Your task to perform on an android device: Open the web browser Image 0: 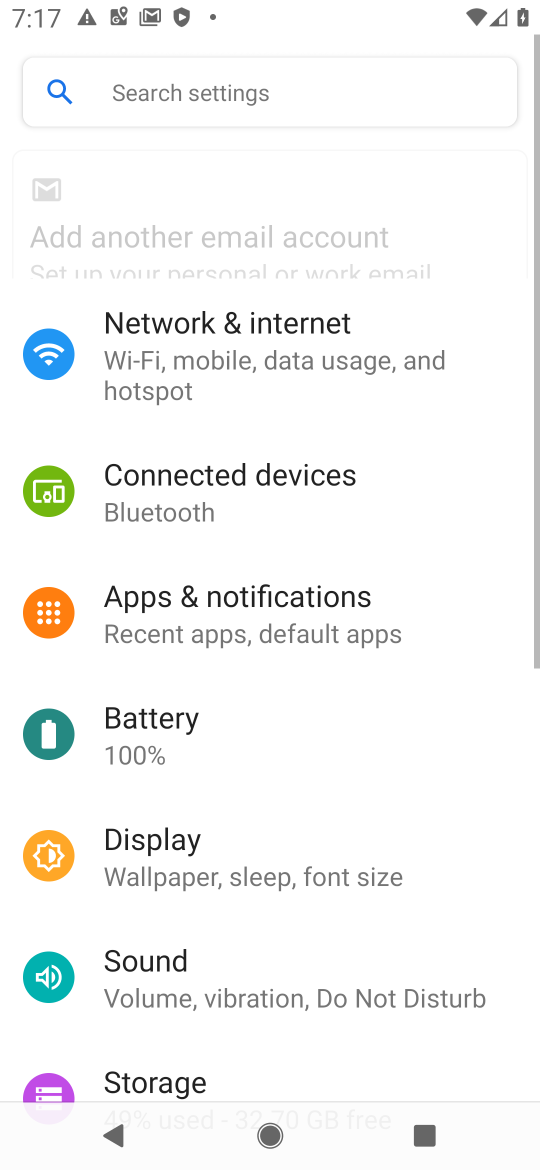
Step 0: drag from (480, 968) to (383, 310)
Your task to perform on an android device: Open the web browser Image 1: 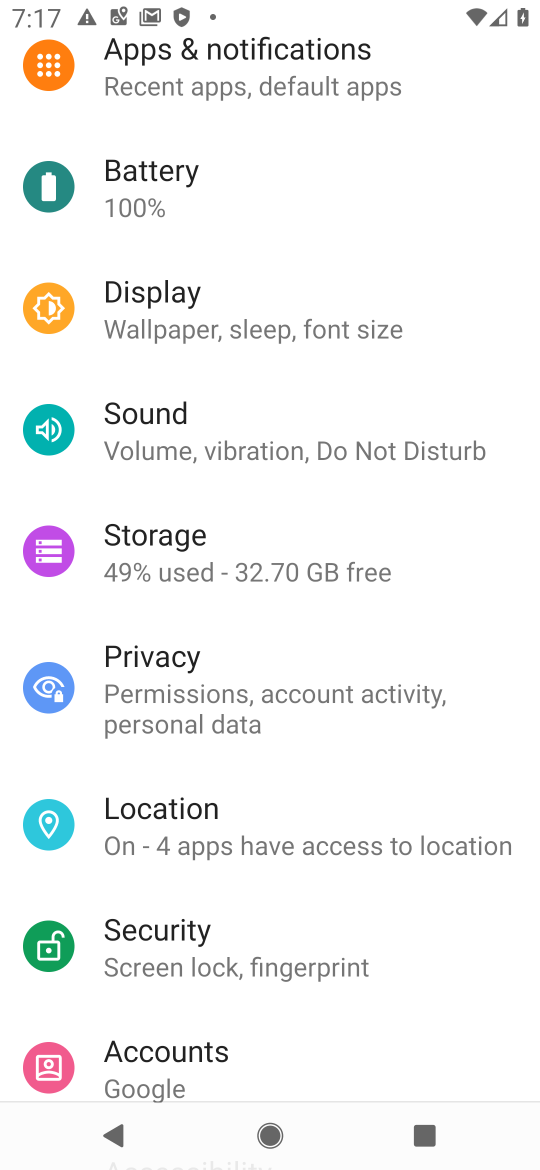
Step 1: click (111, 822)
Your task to perform on an android device: Open the web browser Image 2: 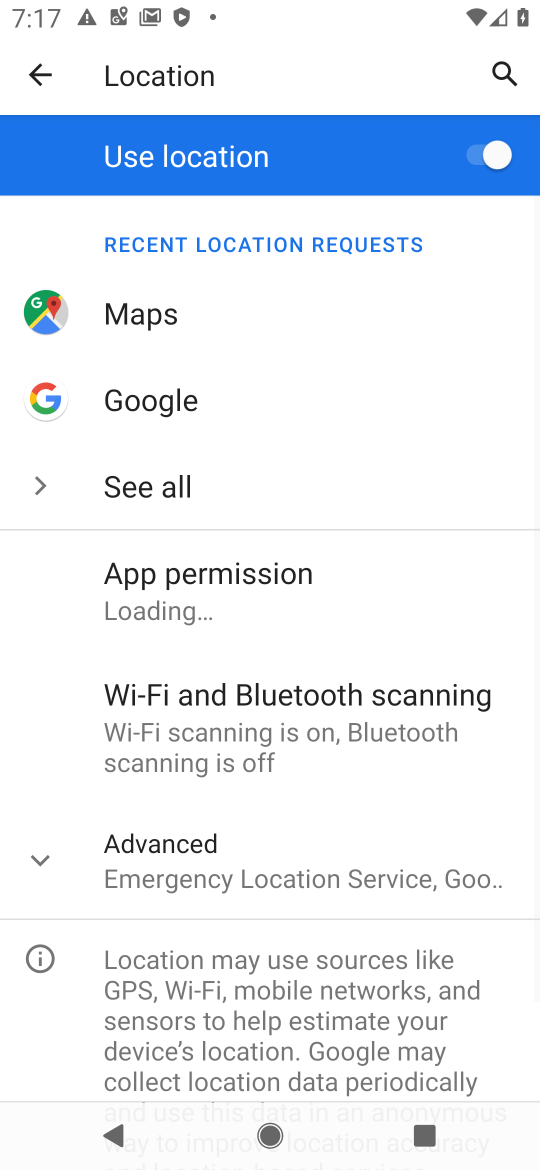
Step 2: click (38, 851)
Your task to perform on an android device: Open the web browser Image 3: 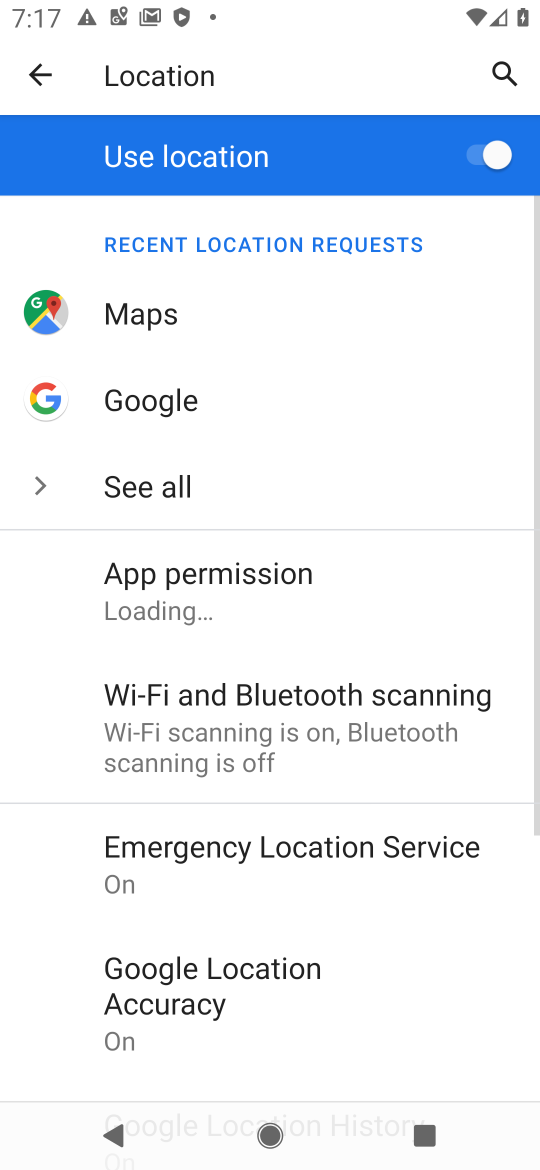
Step 3: press back button
Your task to perform on an android device: Open the web browser Image 4: 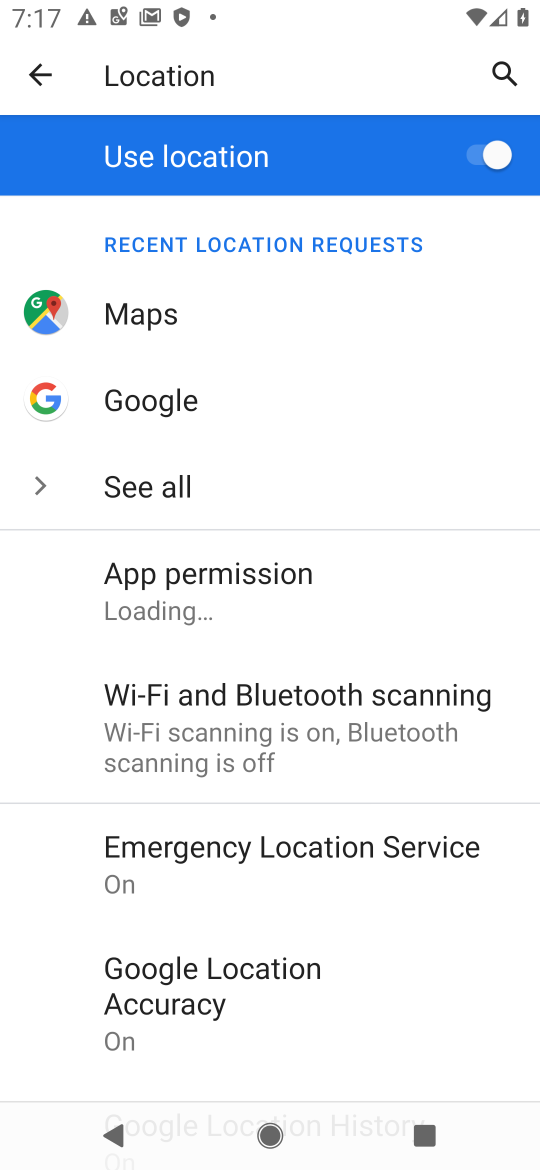
Step 4: press home button
Your task to perform on an android device: Open the web browser Image 5: 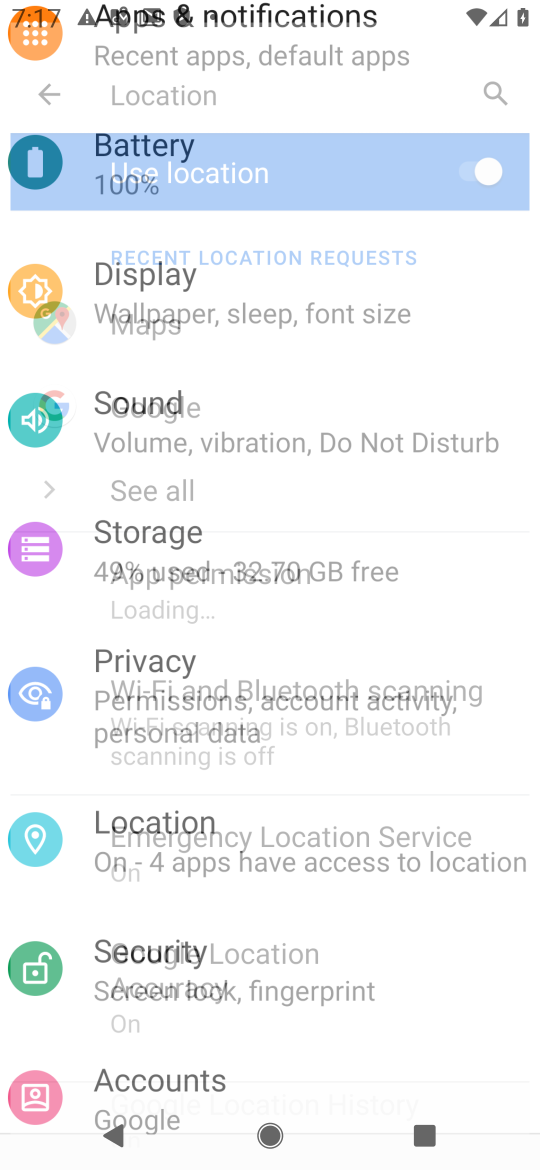
Step 5: drag from (393, 1029) to (301, 79)
Your task to perform on an android device: Open the web browser Image 6: 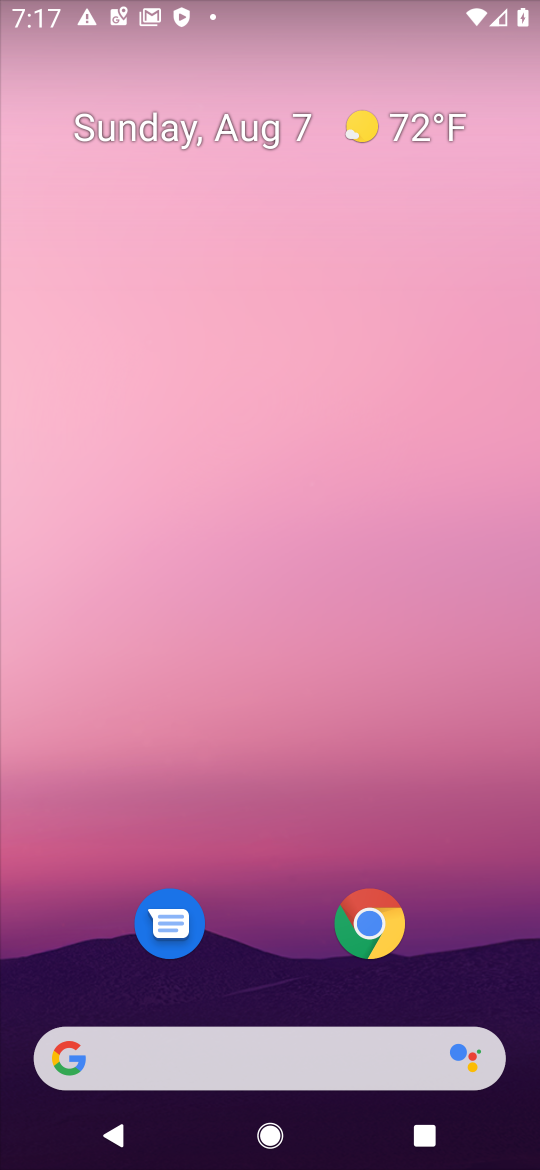
Step 6: drag from (470, 954) to (392, 5)
Your task to perform on an android device: Open the web browser Image 7: 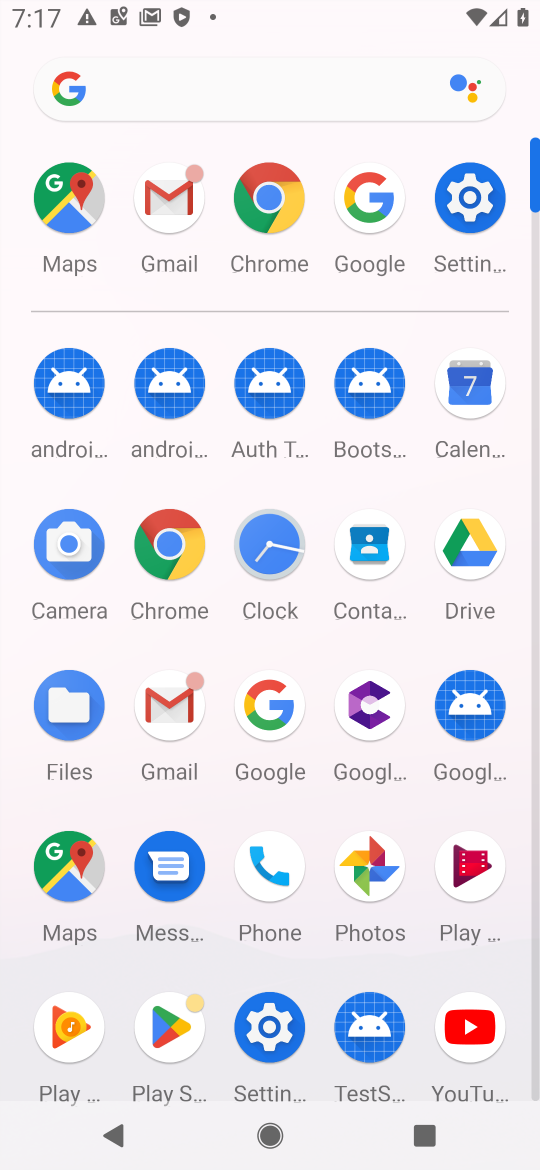
Step 7: click (259, 709)
Your task to perform on an android device: Open the web browser Image 8: 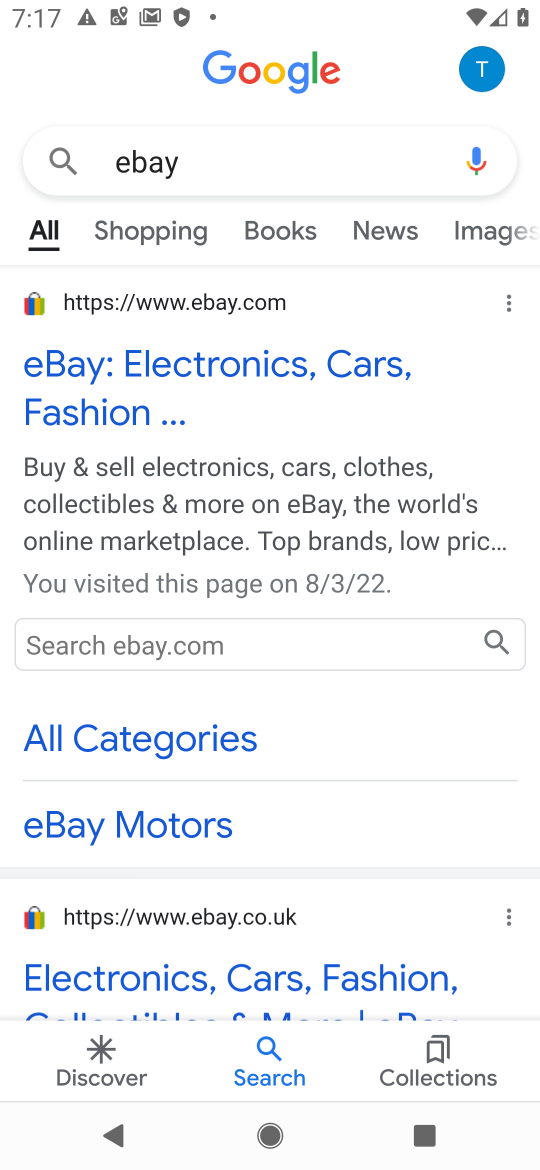
Step 8: press back button
Your task to perform on an android device: Open the web browser Image 9: 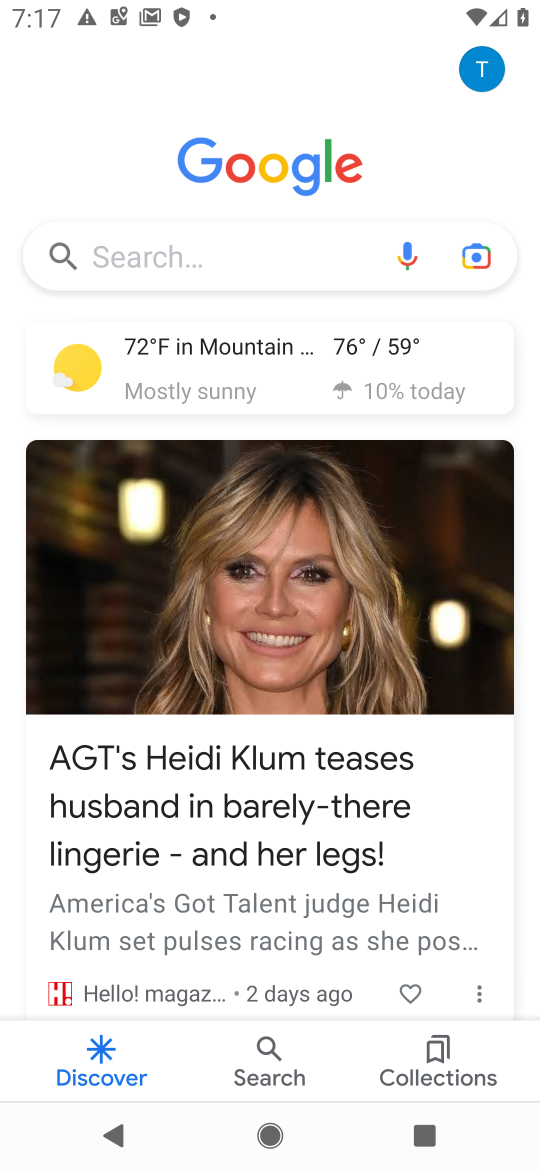
Step 9: click (238, 263)
Your task to perform on an android device: Open the web browser Image 10: 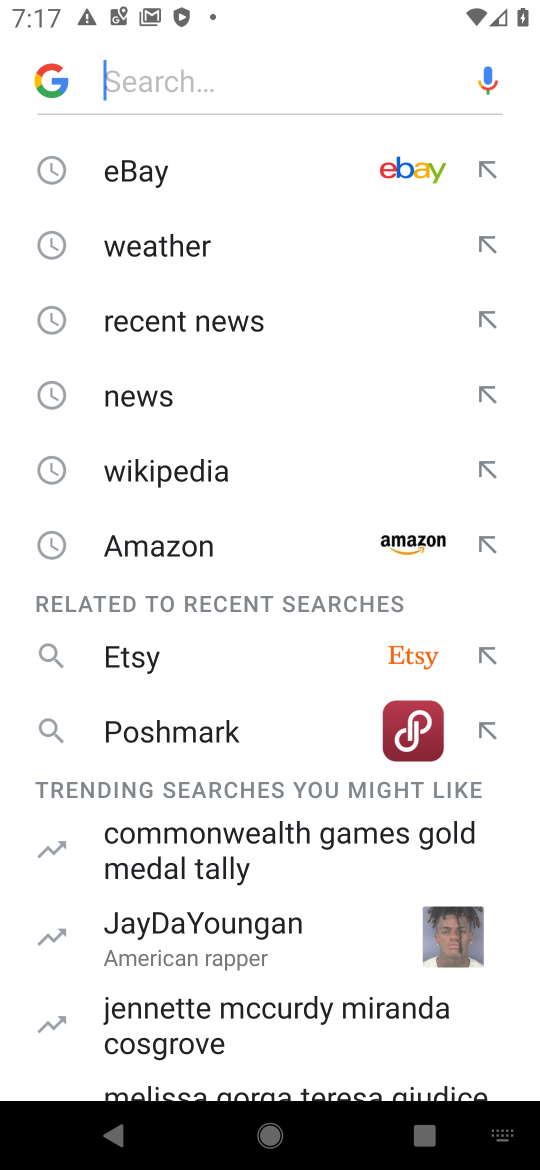
Step 10: type " web browser"
Your task to perform on an android device: Open the web browser Image 11: 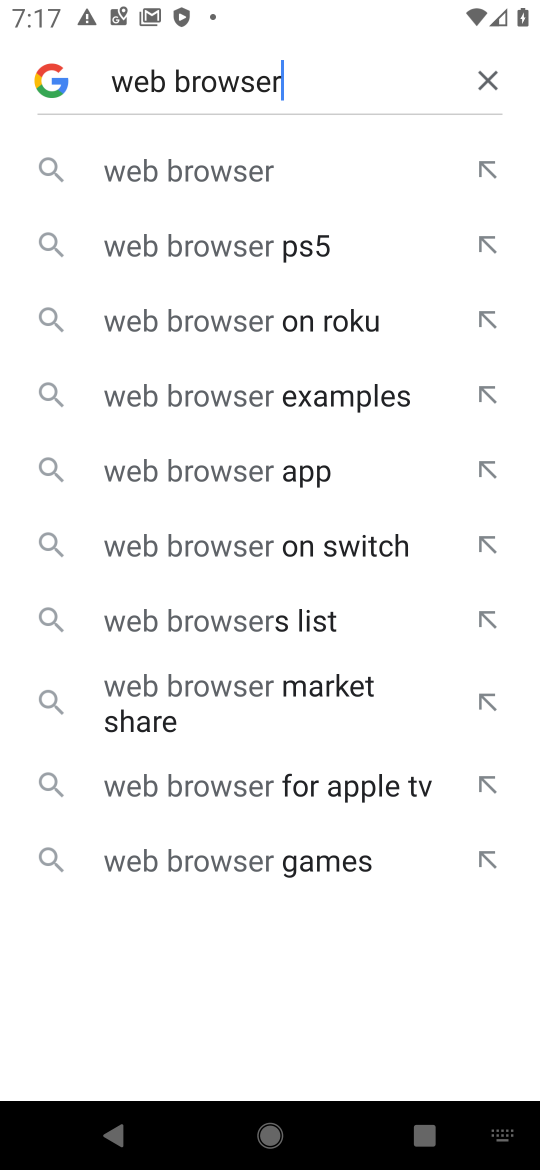
Step 11: click (140, 181)
Your task to perform on an android device: Open the web browser Image 12: 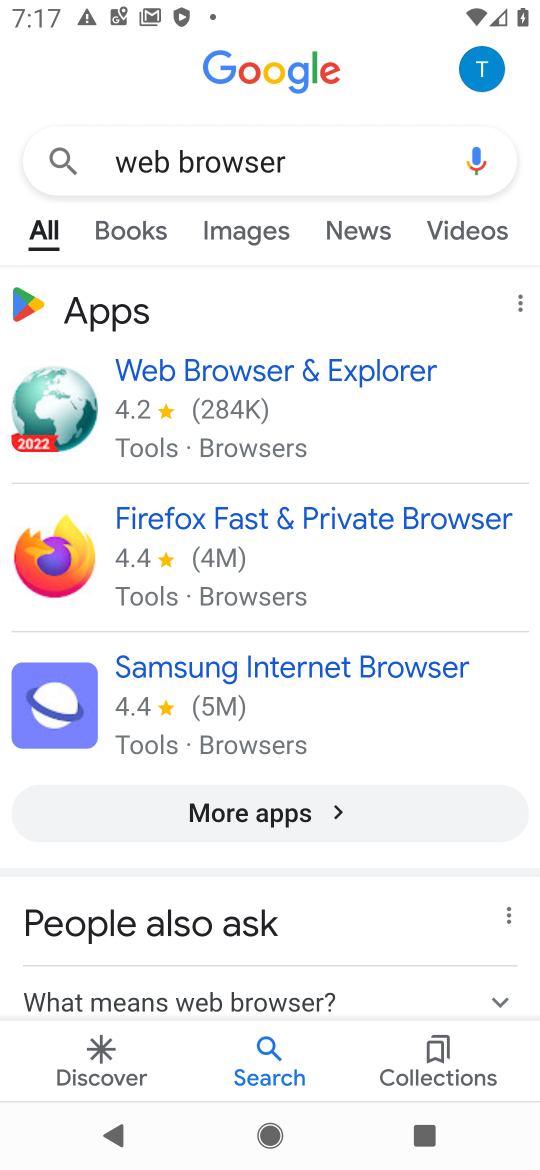
Step 12: task complete